Your task to perform on an android device: turn off location Image 0: 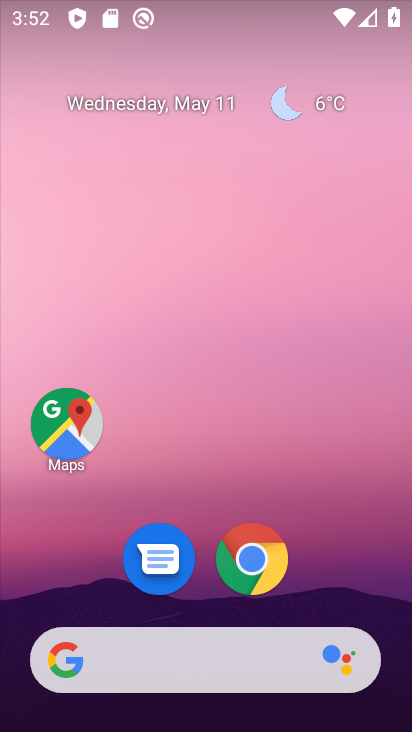
Step 0: click (238, 123)
Your task to perform on an android device: turn off location Image 1: 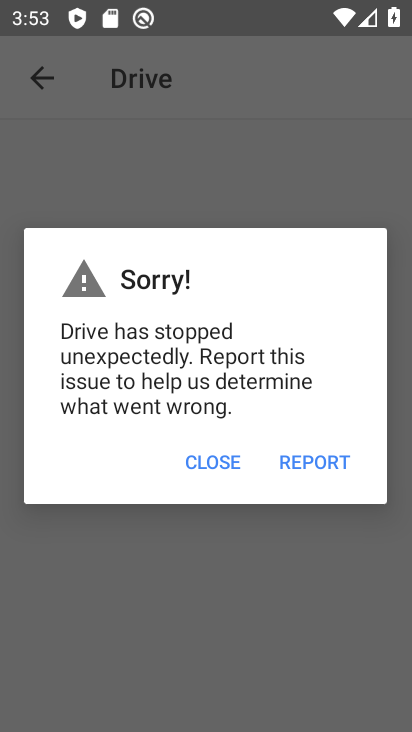
Step 1: drag from (343, 578) to (352, 272)
Your task to perform on an android device: turn off location Image 2: 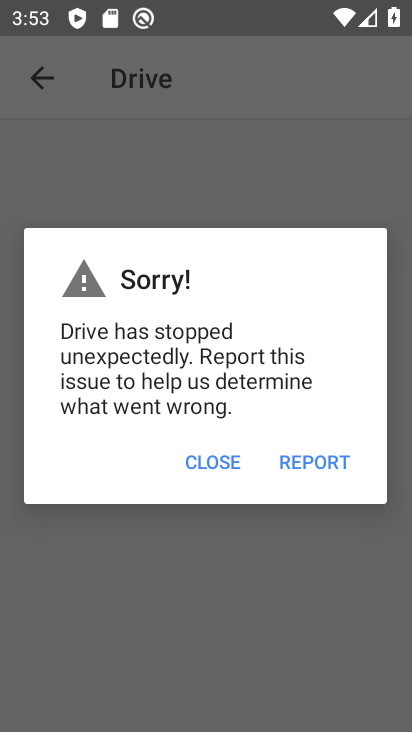
Step 2: press home button
Your task to perform on an android device: turn off location Image 3: 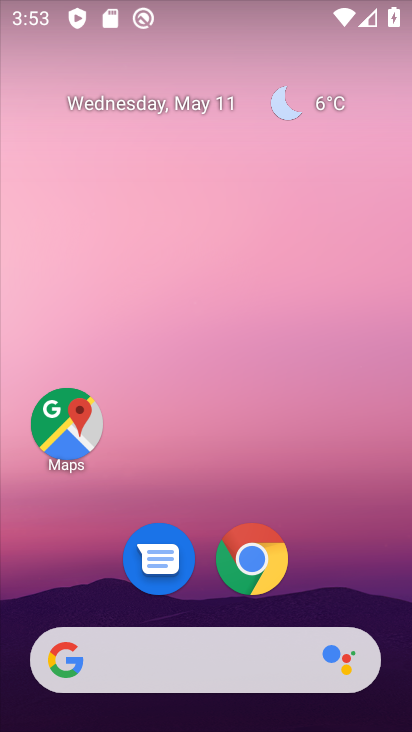
Step 3: drag from (348, 578) to (326, 156)
Your task to perform on an android device: turn off location Image 4: 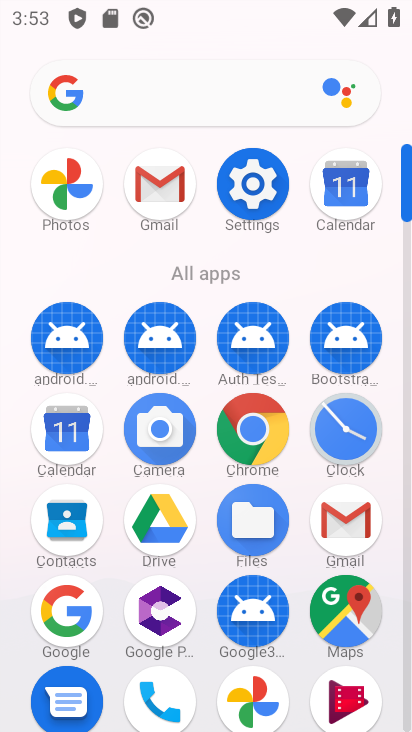
Step 4: click (265, 211)
Your task to perform on an android device: turn off location Image 5: 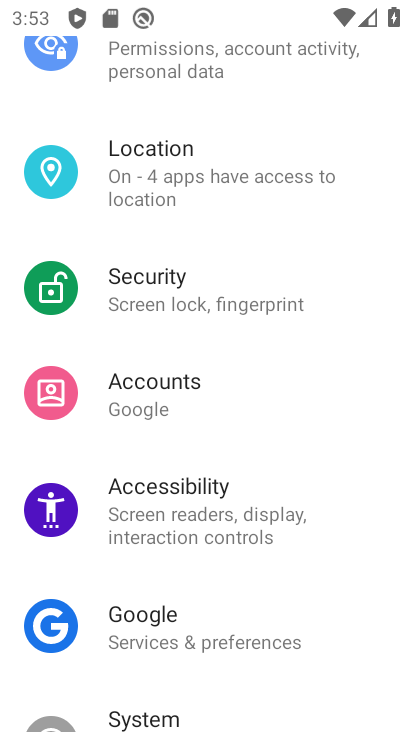
Step 5: drag from (220, 630) to (252, 217)
Your task to perform on an android device: turn off location Image 6: 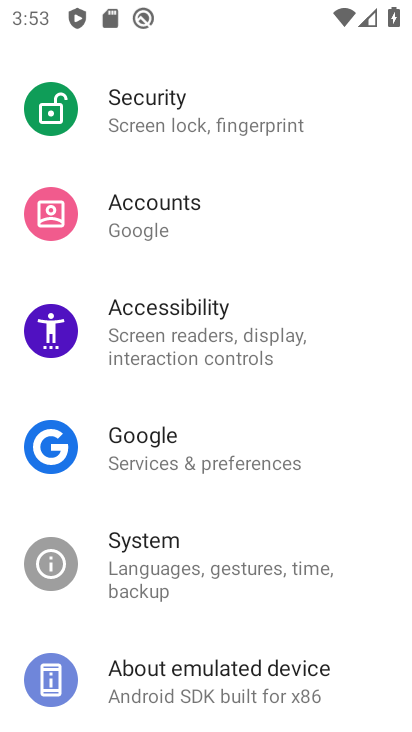
Step 6: drag from (216, 120) to (217, 560)
Your task to perform on an android device: turn off location Image 7: 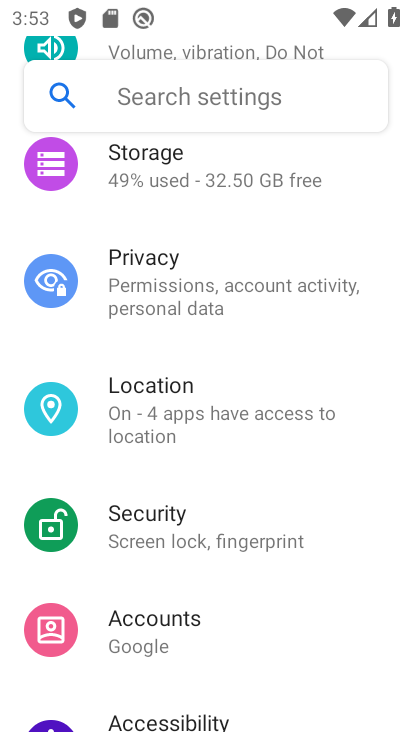
Step 7: click (130, 415)
Your task to perform on an android device: turn off location Image 8: 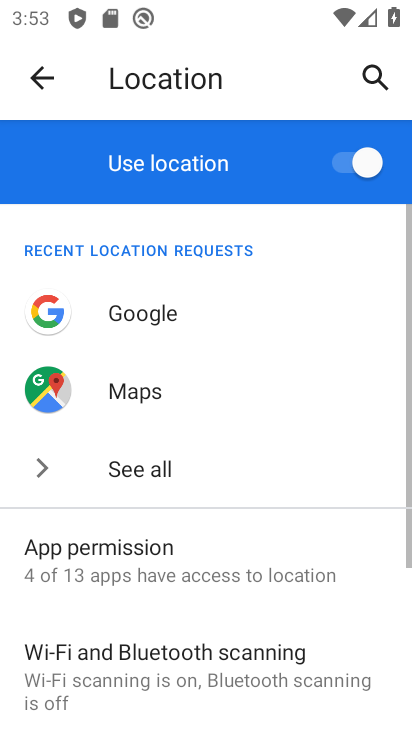
Step 8: click (361, 165)
Your task to perform on an android device: turn off location Image 9: 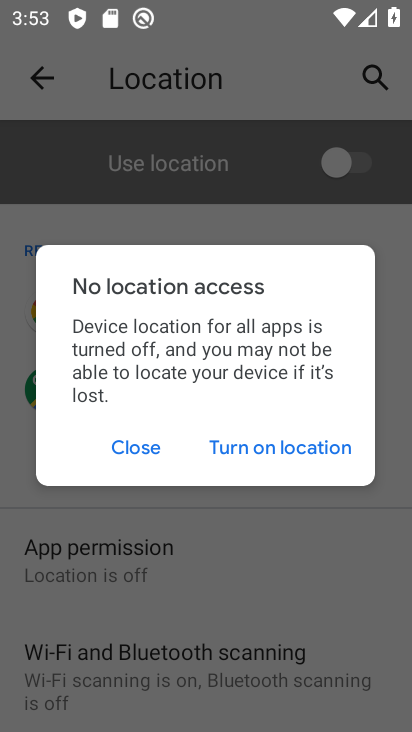
Step 9: task complete